Your task to perform on an android device: Is it going to rain this weekend? Image 0: 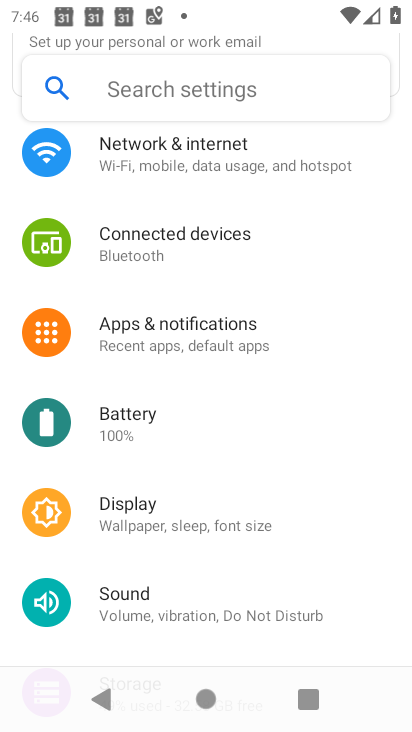
Step 0: press home button
Your task to perform on an android device: Is it going to rain this weekend? Image 1: 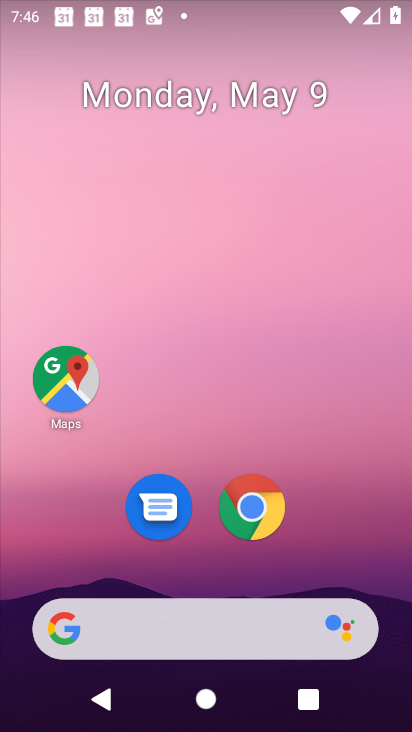
Step 1: drag from (226, 660) to (331, 152)
Your task to perform on an android device: Is it going to rain this weekend? Image 2: 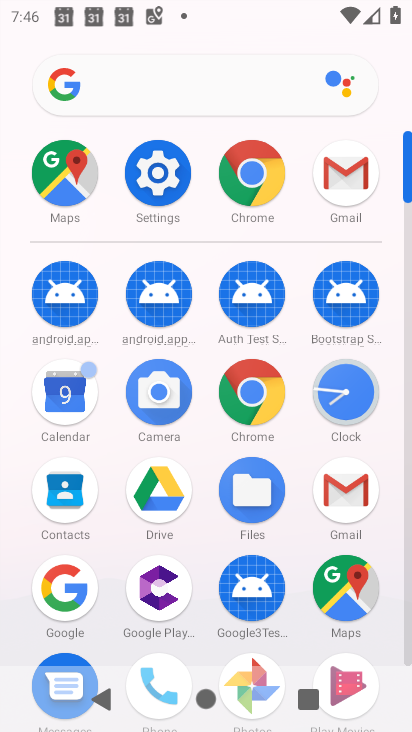
Step 2: click (132, 81)
Your task to perform on an android device: Is it going to rain this weekend? Image 3: 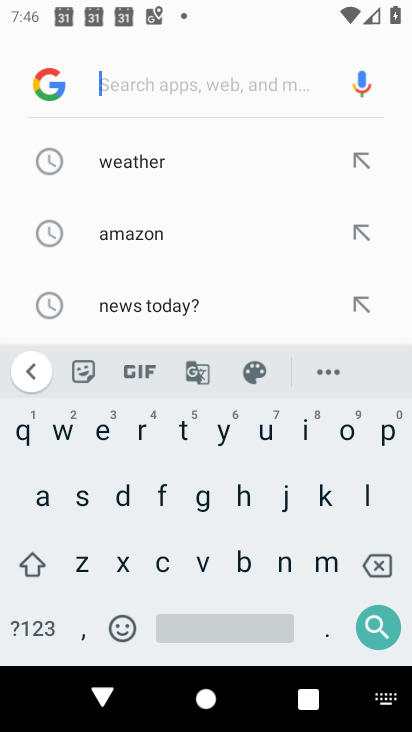
Step 3: click (164, 154)
Your task to perform on an android device: Is it going to rain this weekend? Image 4: 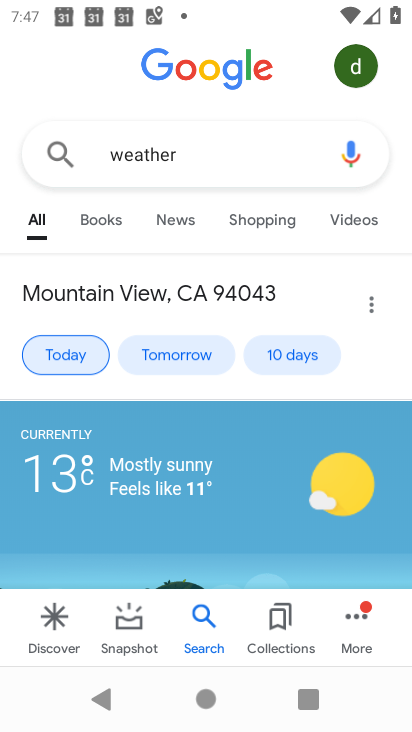
Step 4: click (283, 350)
Your task to perform on an android device: Is it going to rain this weekend? Image 5: 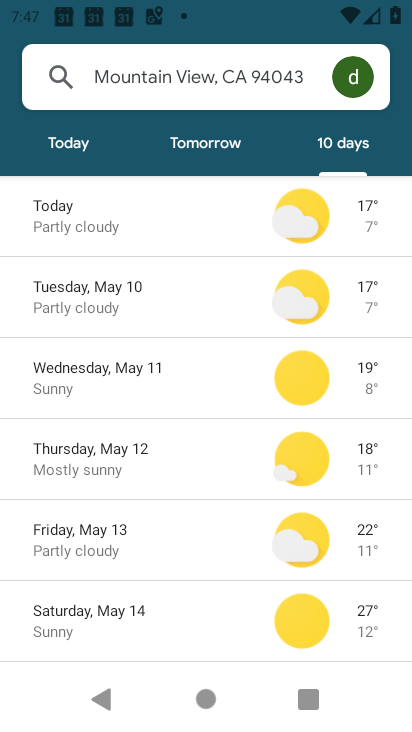
Step 5: task complete